Your task to perform on an android device: move an email to a new category in the gmail app Image 0: 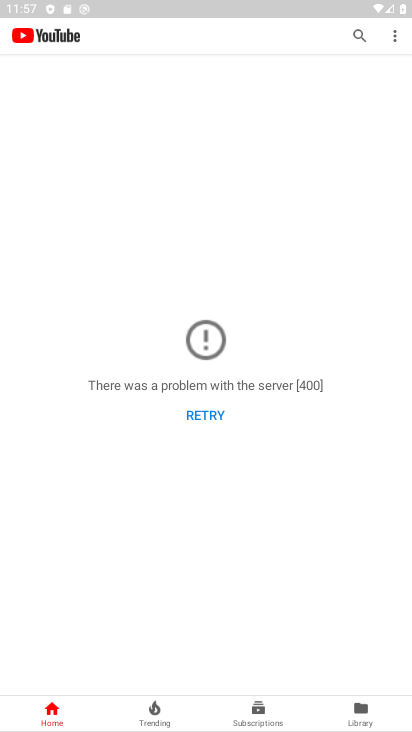
Step 0: press home button
Your task to perform on an android device: move an email to a new category in the gmail app Image 1: 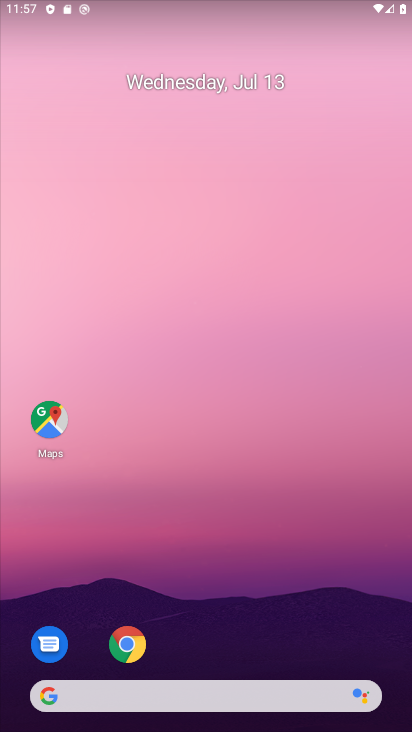
Step 1: drag from (254, 651) to (171, 127)
Your task to perform on an android device: move an email to a new category in the gmail app Image 2: 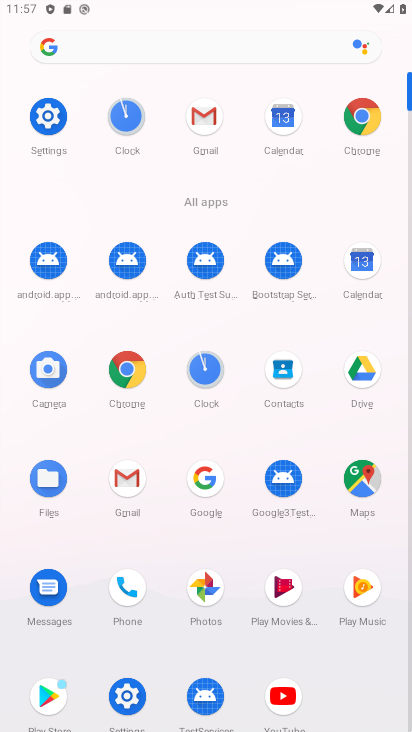
Step 2: click (132, 477)
Your task to perform on an android device: move an email to a new category in the gmail app Image 3: 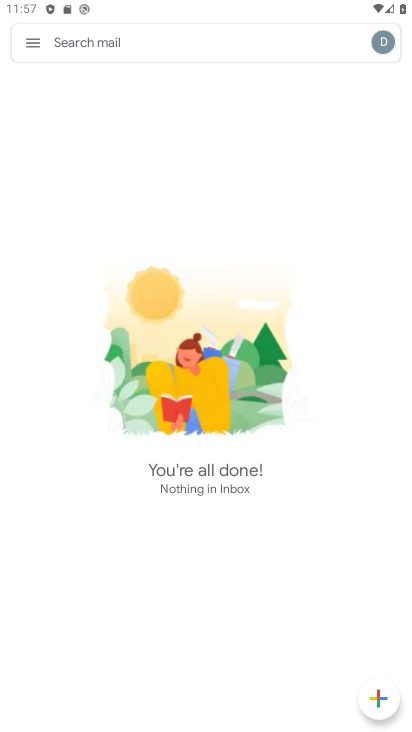
Step 3: click (27, 49)
Your task to perform on an android device: move an email to a new category in the gmail app Image 4: 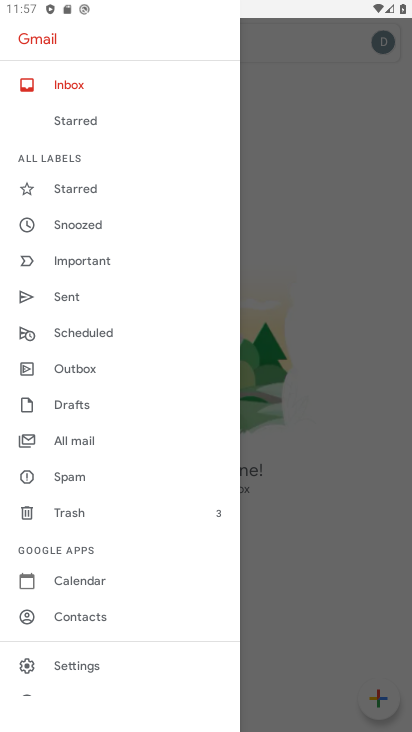
Step 4: click (68, 74)
Your task to perform on an android device: move an email to a new category in the gmail app Image 5: 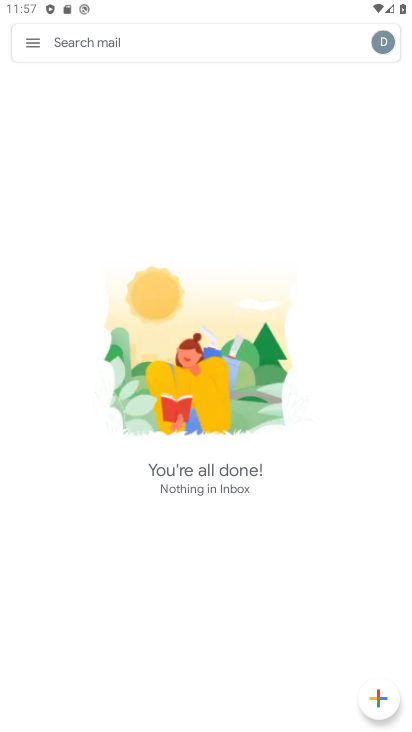
Step 5: task complete